Your task to perform on an android device: Go to wifi settings Image 0: 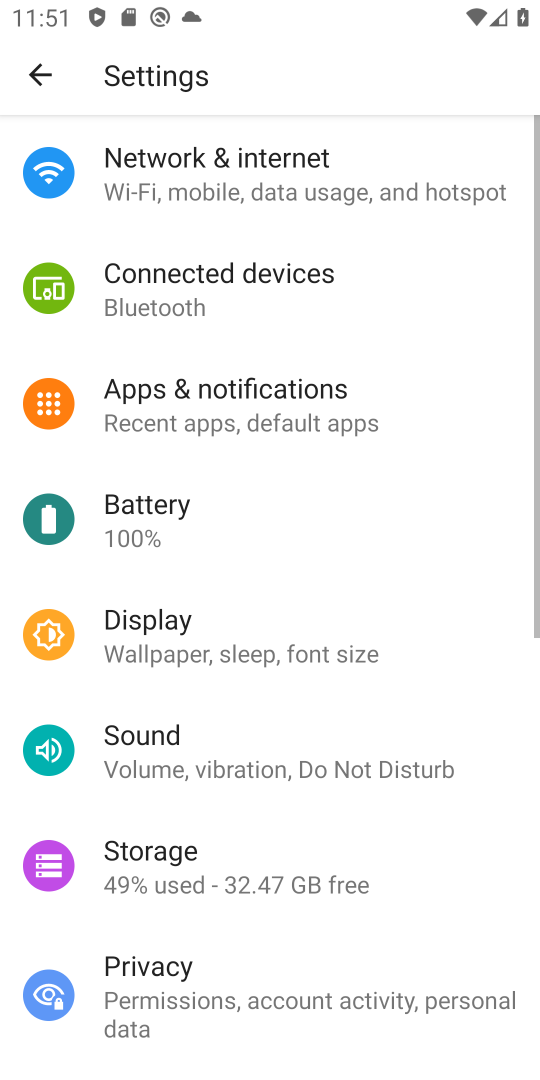
Step 0: click (202, 146)
Your task to perform on an android device: Go to wifi settings Image 1: 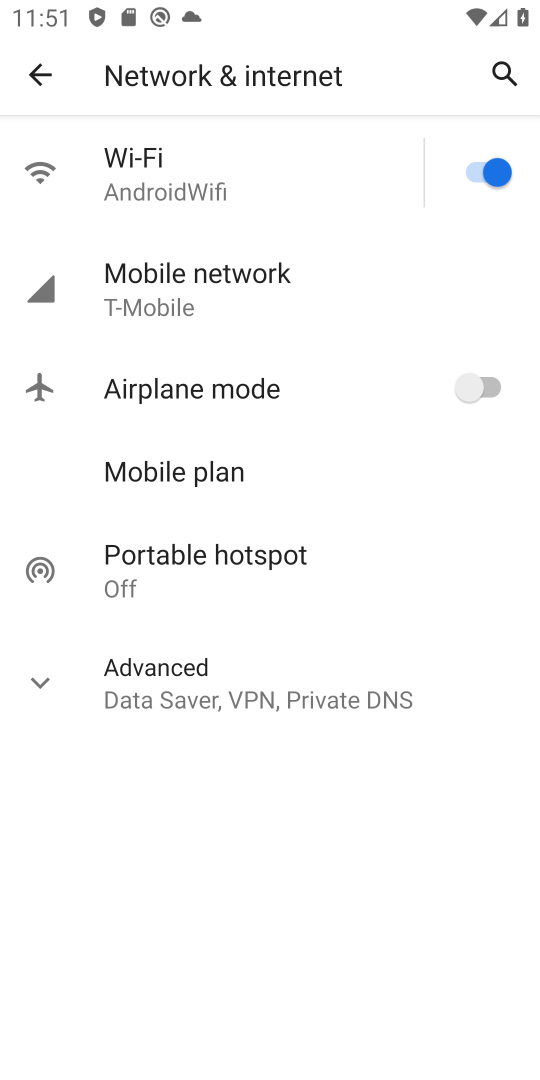
Step 1: click (136, 161)
Your task to perform on an android device: Go to wifi settings Image 2: 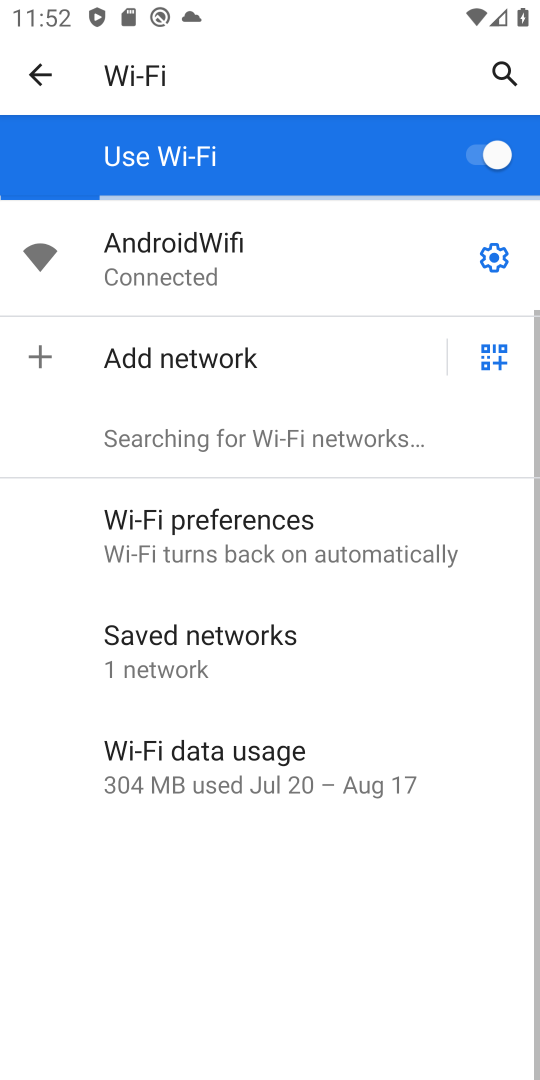
Step 2: task complete